Your task to perform on an android device: refresh tabs in the chrome app Image 0: 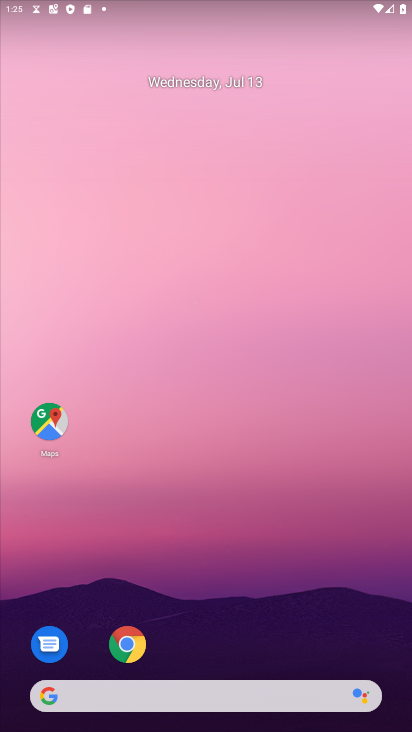
Step 0: press home button
Your task to perform on an android device: refresh tabs in the chrome app Image 1: 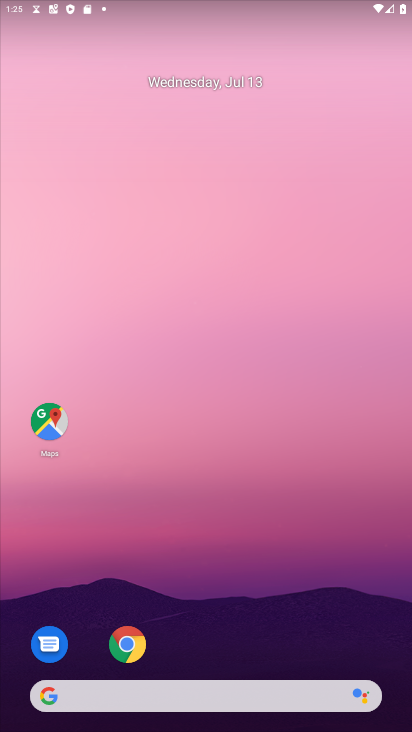
Step 1: click (137, 635)
Your task to perform on an android device: refresh tabs in the chrome app Image 2: 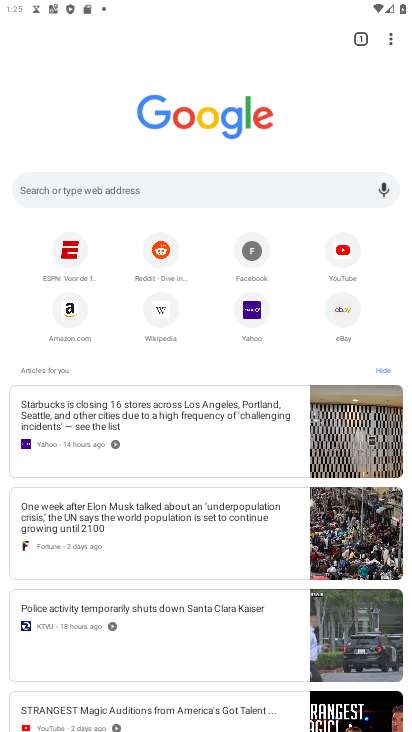
Step 2: click (388, 35)
Your task to perform on an android device: refresh tabs in the chrome app Image 3: 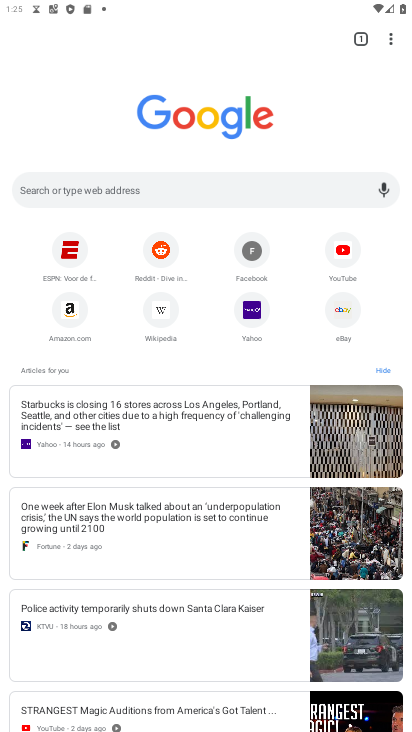
Step 3: click (390, 39)
Your task to perform on an android device: refresh tabs in the chrome app Image 4: 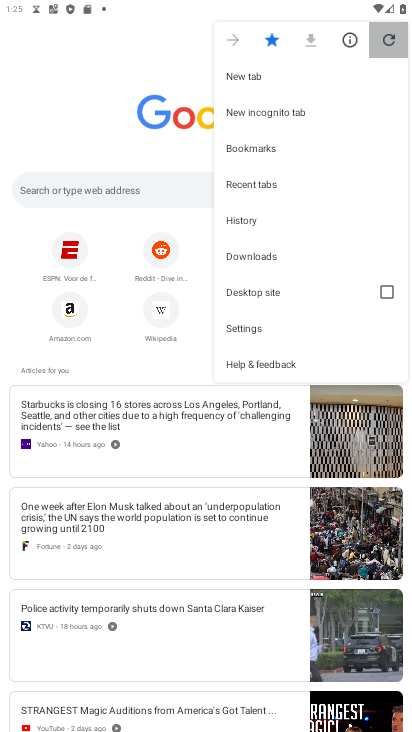
Step 4: click (389, 40)
Your task to perform on an android device: refresh tabs in the chrome app Image 5: 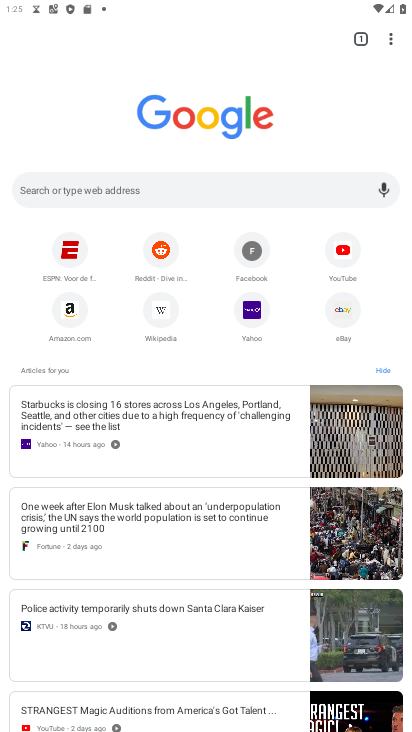
Step 5: click (388, 40)
Your task to perform on an android device: refresh tabs in the chrome app Image 6: 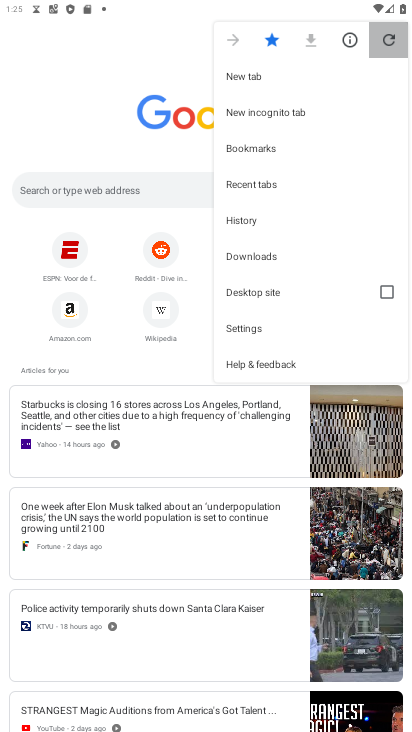
Step 6: click (388, 40)
Your task to perform on an android device: refresh tabs in the chrome app Image 7: 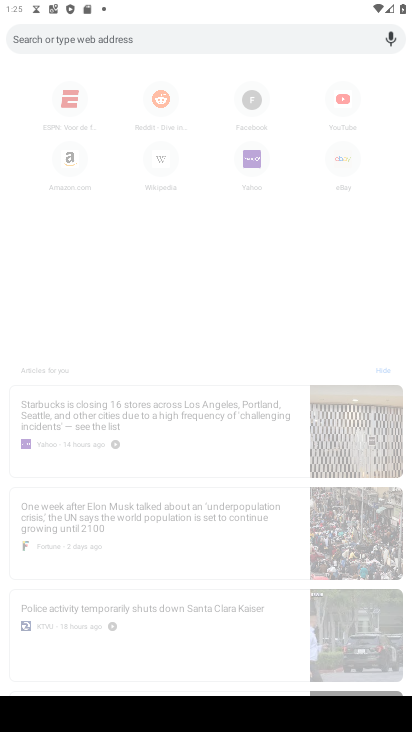
Step 7: task complete